Your task to perform on an android device: turn off improve location accuracy Image 0: 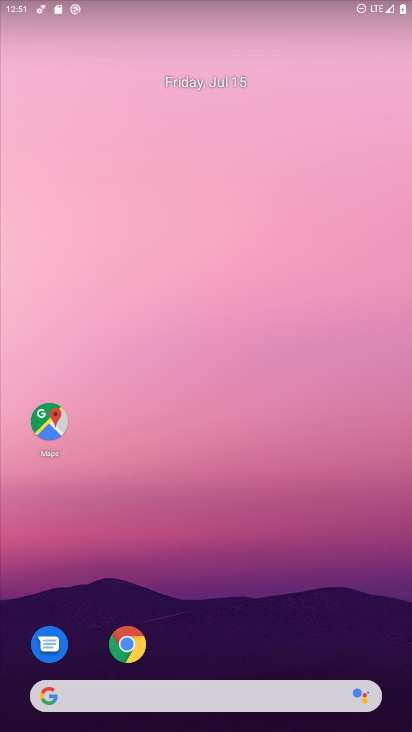
Step 0: drag from (10, 502) to (155, 166)
Your task to perform on an android device: turn off improve location accuracy Image 1: 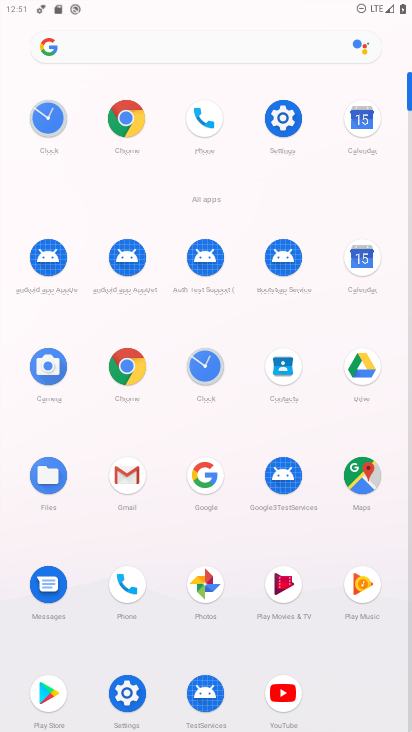
Step 1: click (282, 140)
Your task to perform on an android device: turn off improve location accuracy Image 2: 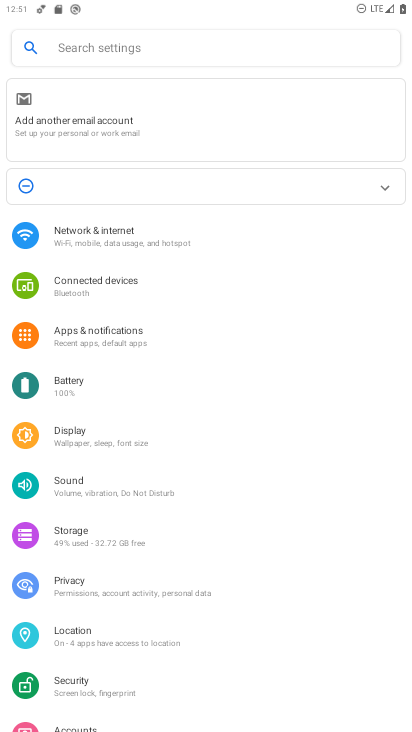
Step 2: click (143, 634)
Your task to perform on an android device: turn off improve location accuracy Image 3: 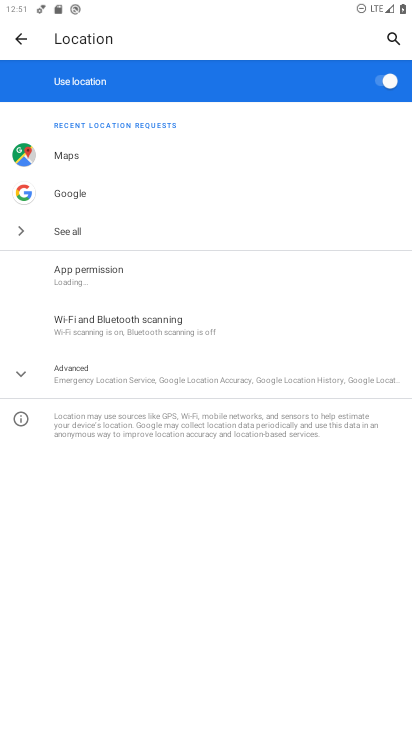
Step 3: click (139, 381)
Your task to perform on an android device: turn off improve location accuracy Image 4: 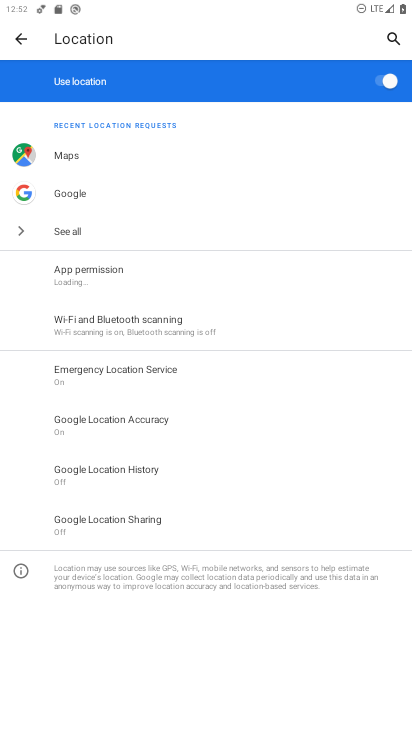
Step 4: click (220, 434)
Your task to perform on an android device: turn off improve location accuracy Image 5: 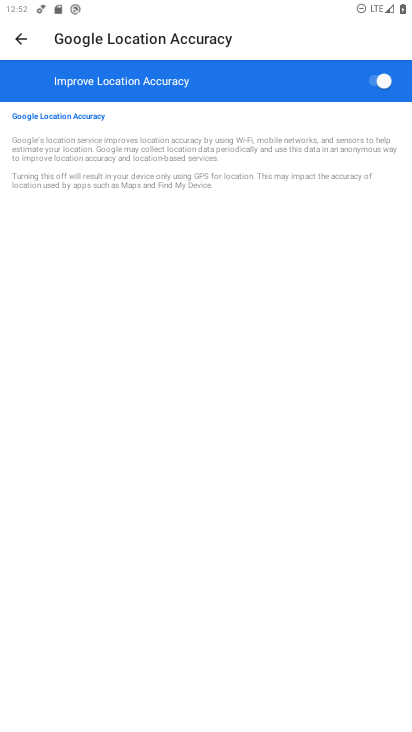
Step 5: click (392, 87)
Your task to perform on an android device: turn off improve location accuracy Image 6: 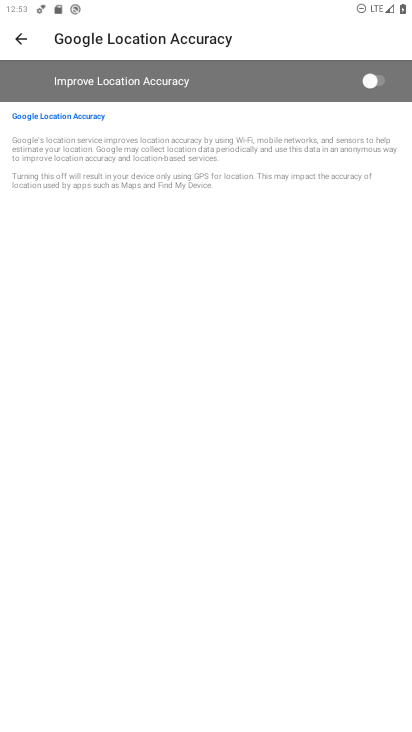
Step 6: task complete